Your task to perform on an android device: Open settings on Google Maps Image 0: 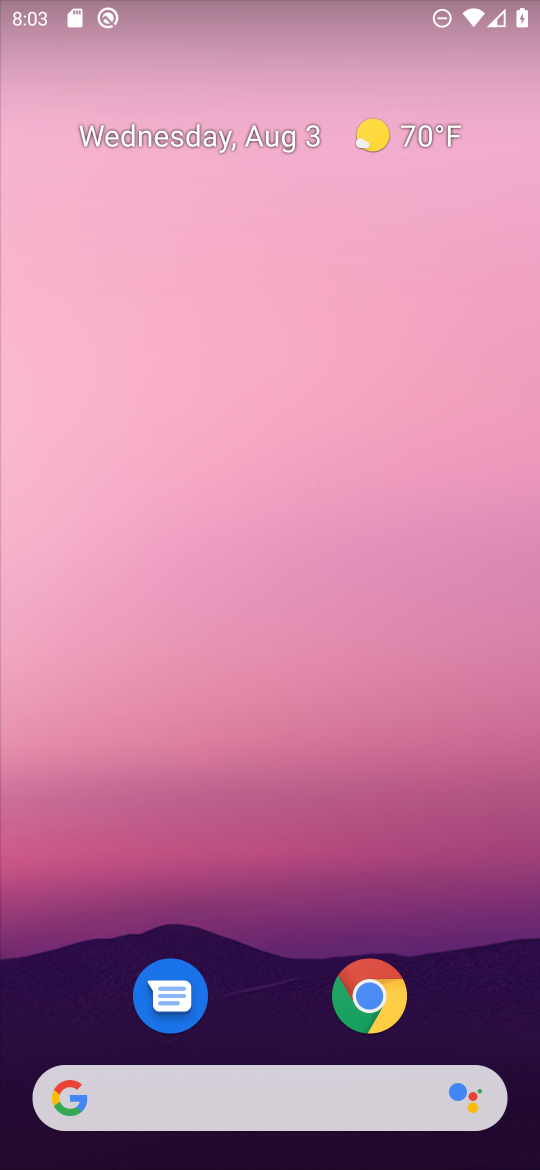
Step 0: drag from (268, 902) to (356, 0)
Your task to perform on an android device: Open settings on Google Maps Image 1: 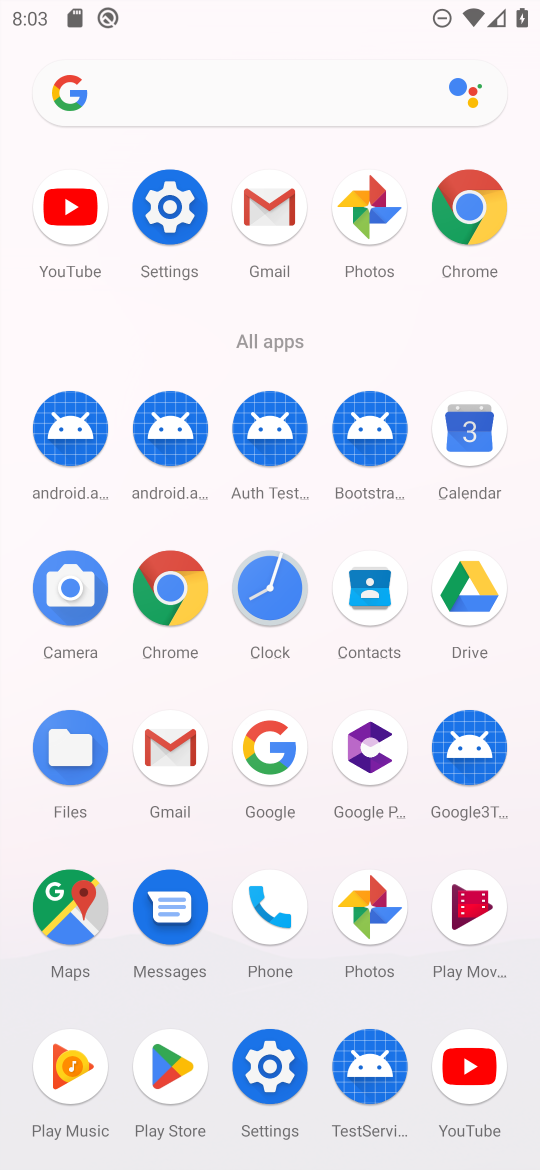
Step 1: click (73, 904)
Your task to perform on an android device: Open settings on Google Maps Image 2: 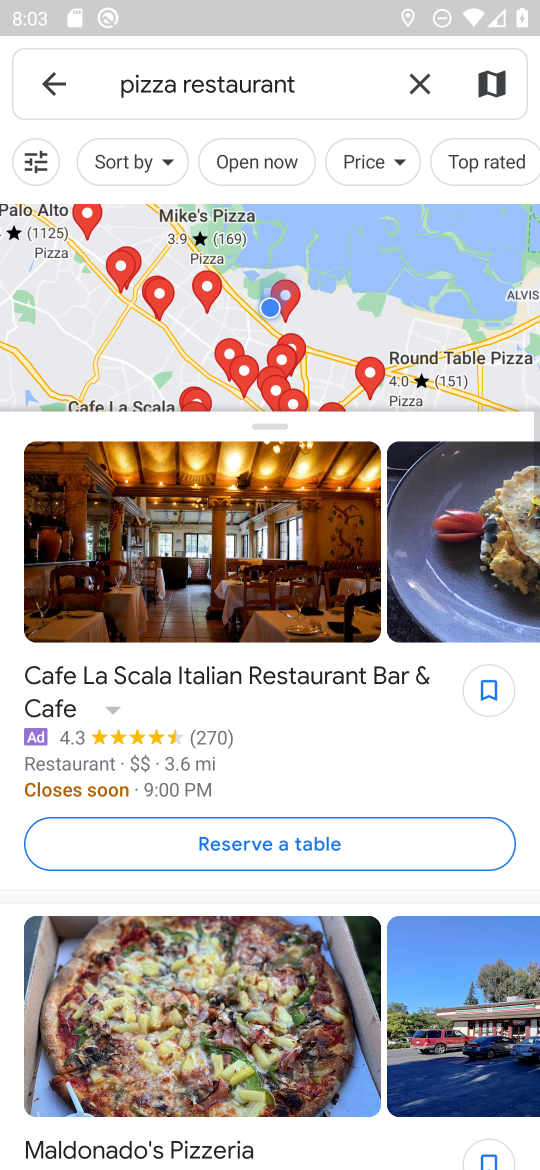
Step 2: click (57, 80)
Your task to perform on an android device: Open settings on Google Maps Image 3: 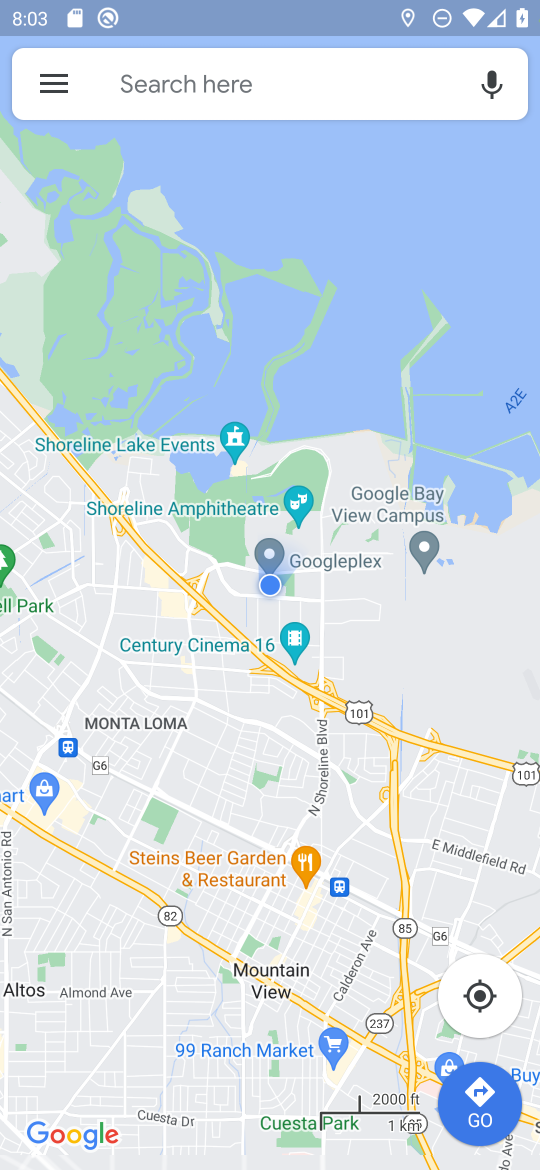
Step 3: click (55, 77)
Your task to perform on an android device: Open settings on Google Maps Image 4: 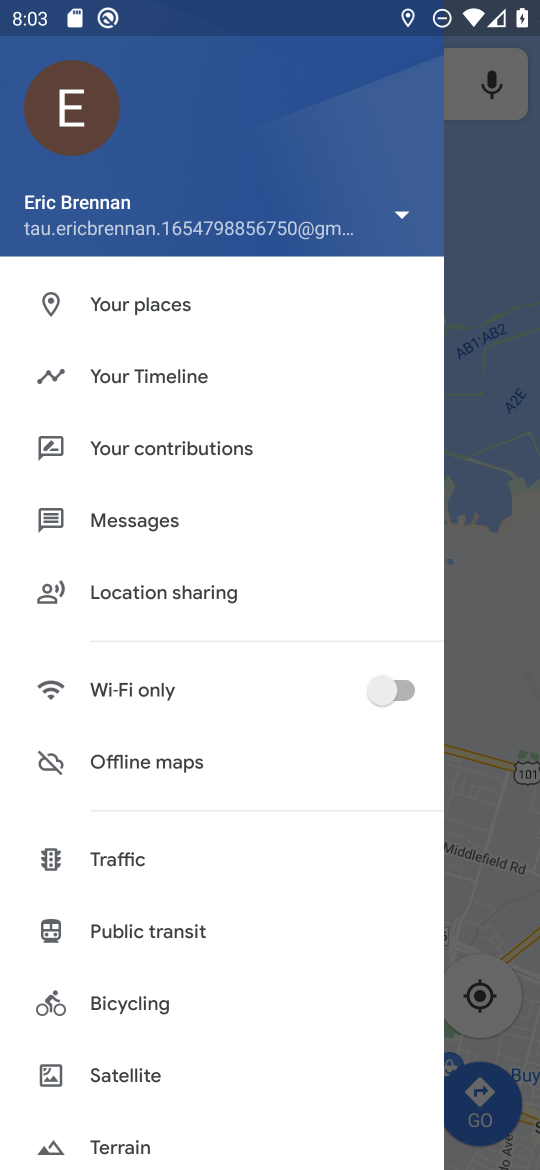
Step 4: drag from (268, 969) to (241, 162)
Your task to perform on an android device: Open settings on Google Maps Image 5: 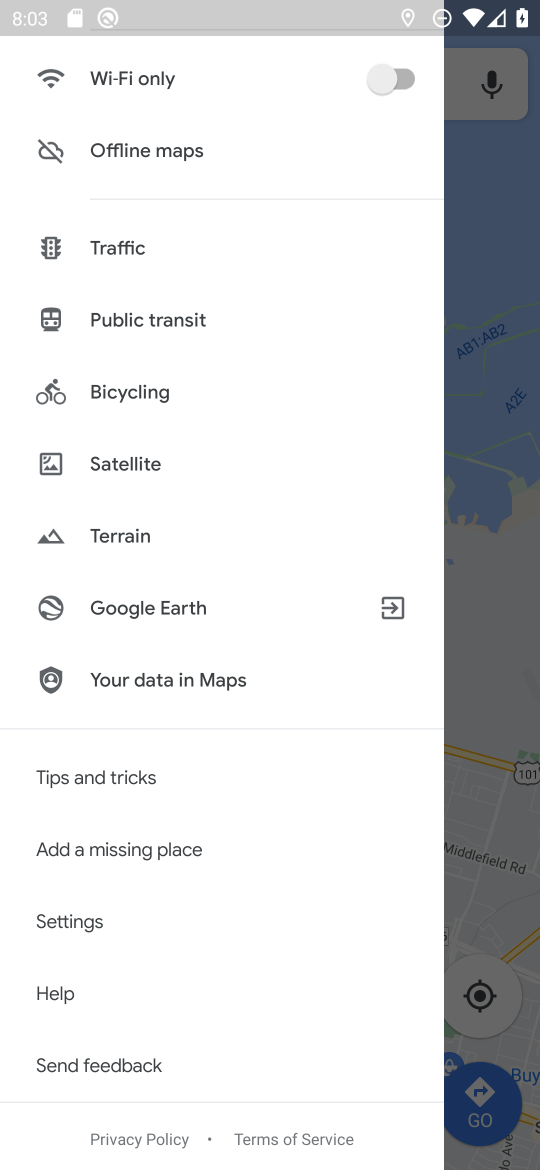
Step 5: click (91, 914)
Your task to perform on an android device: Open settings on Google Maps Image 6: 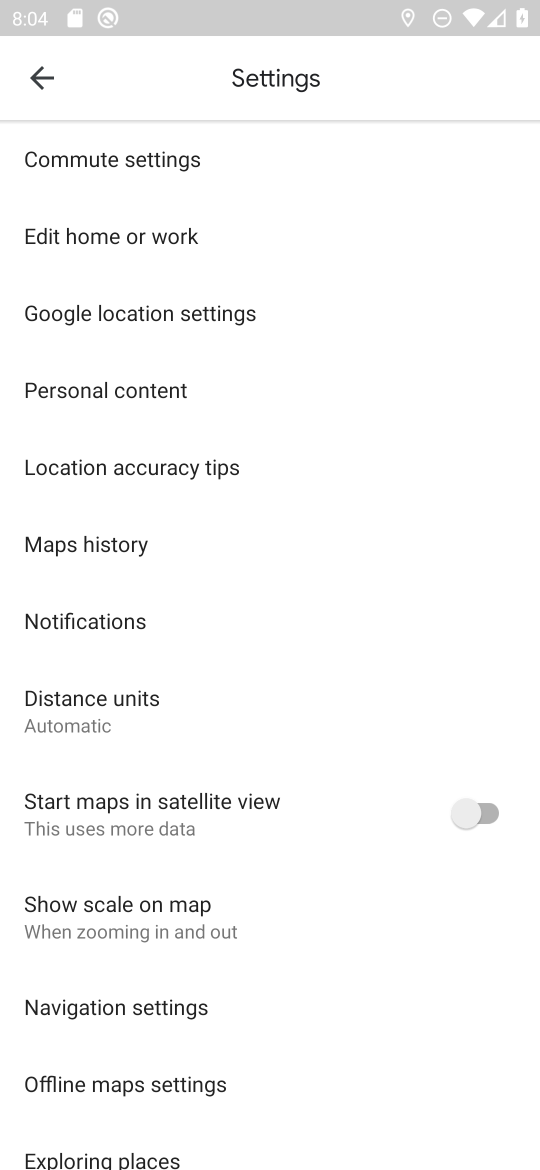
Step 6: task complete